Your task to perform on an android device: turn on data saver in the chrome app Image 0: 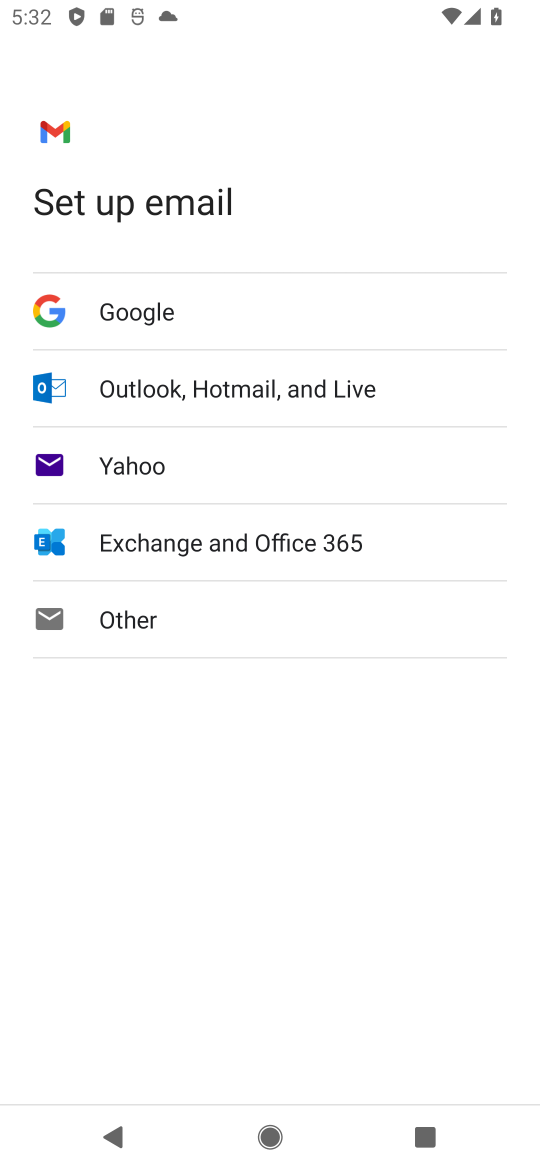
Step 0: press home button
Your task to perform on an android device: turn on data saver in the chrome app Image 1: 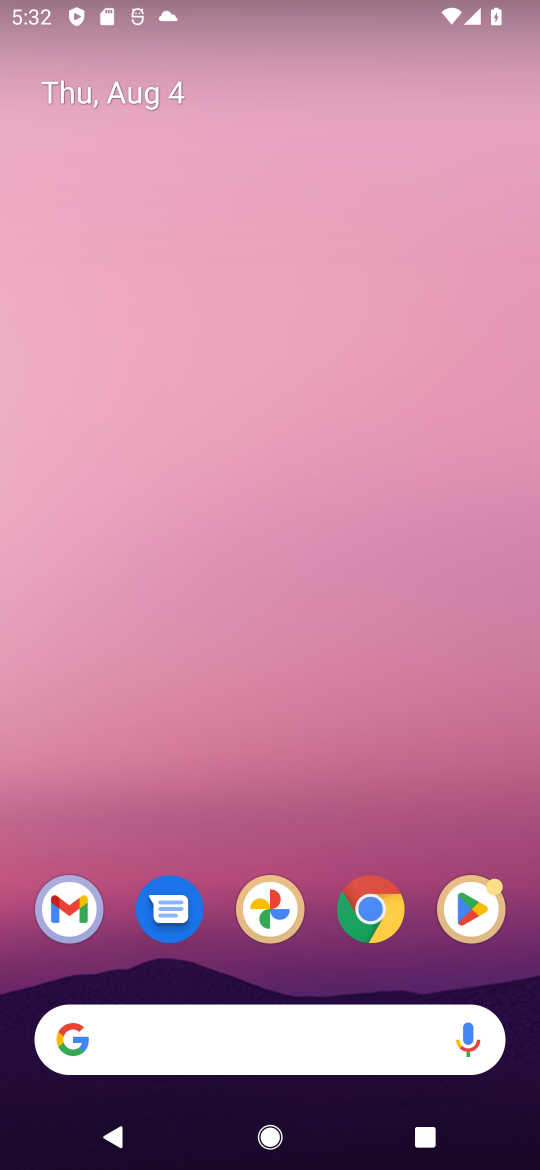
Step 1: drag from (179, 1060) to (314, 289)
Your task to perform on an android device: turn on data saver in the chrome app Image 2: 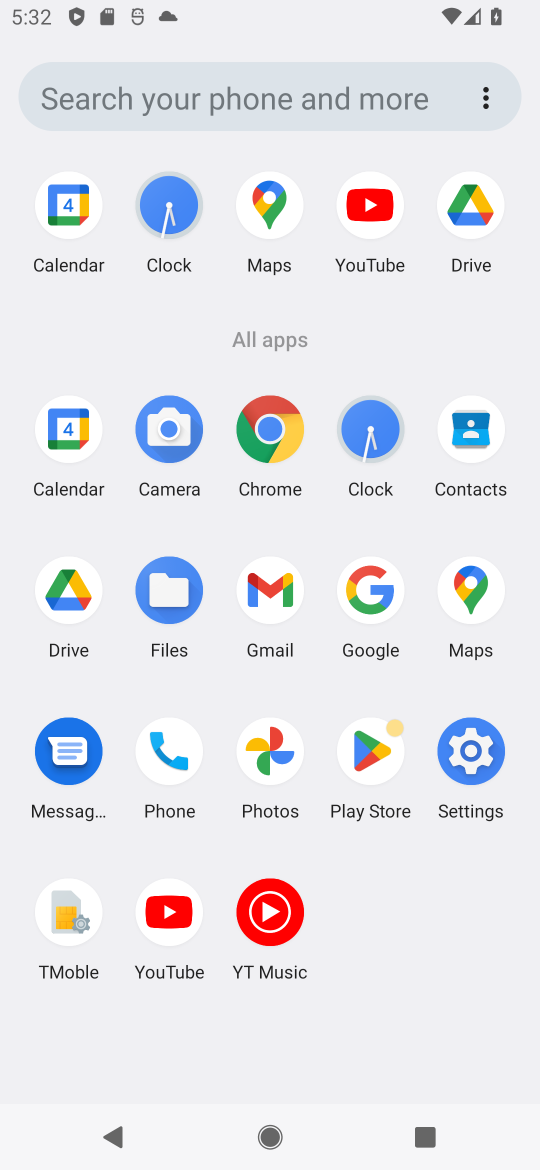
Step 2: click (269, 435)
Your task to perform on an android device: turn on data saver in the chrome app Image 3: 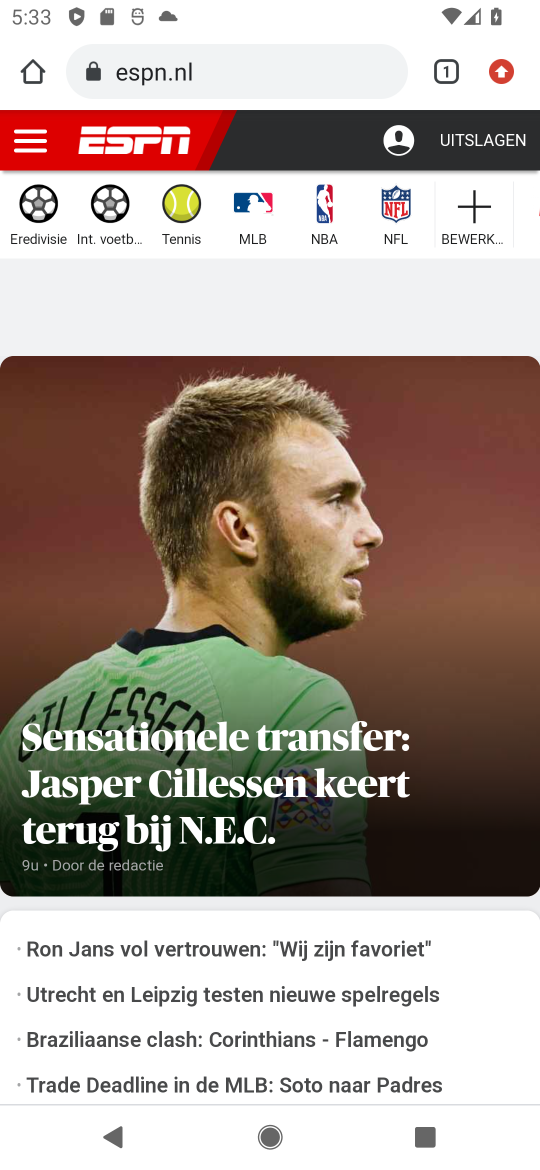
Step 3: click (498, 79)
Your task to perform on an android device: turn on data saver in the chrome app Image 4: 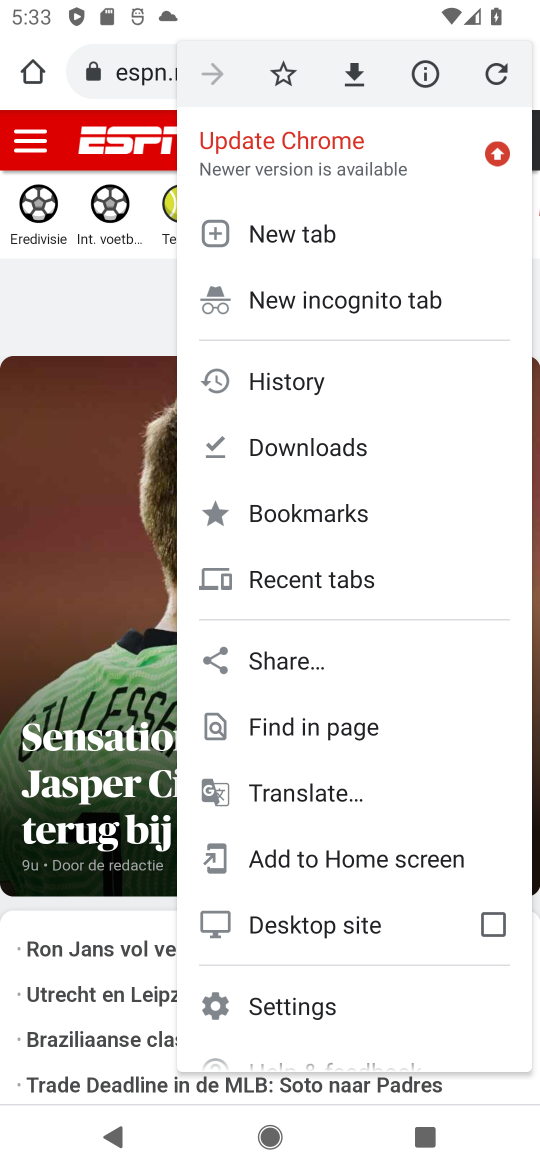
Step 4: click (307, 1003)
Your task to perform on an android device: turn on data saver in the chrome app Image 5: 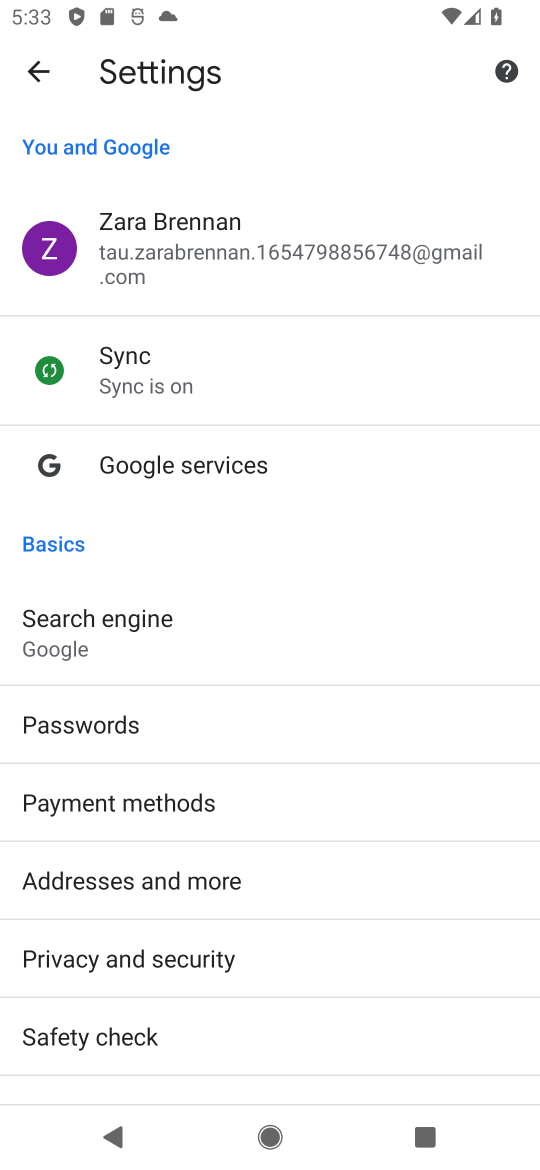
Step 5: drag from (111, 843) to (143, 637)
Your task to perform on an android device: turn on data saver in the chrome app Image 6: 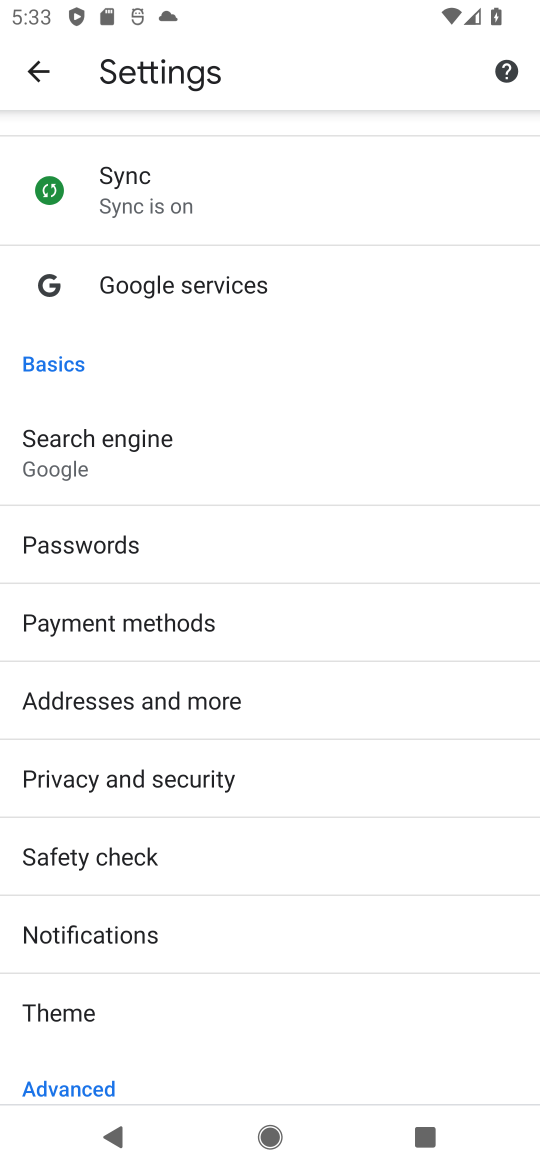
Step 6: drag from (130, 915) to (221, 742)
Your task to perform on an android device: turn on data saver in the chrome app Image 7: 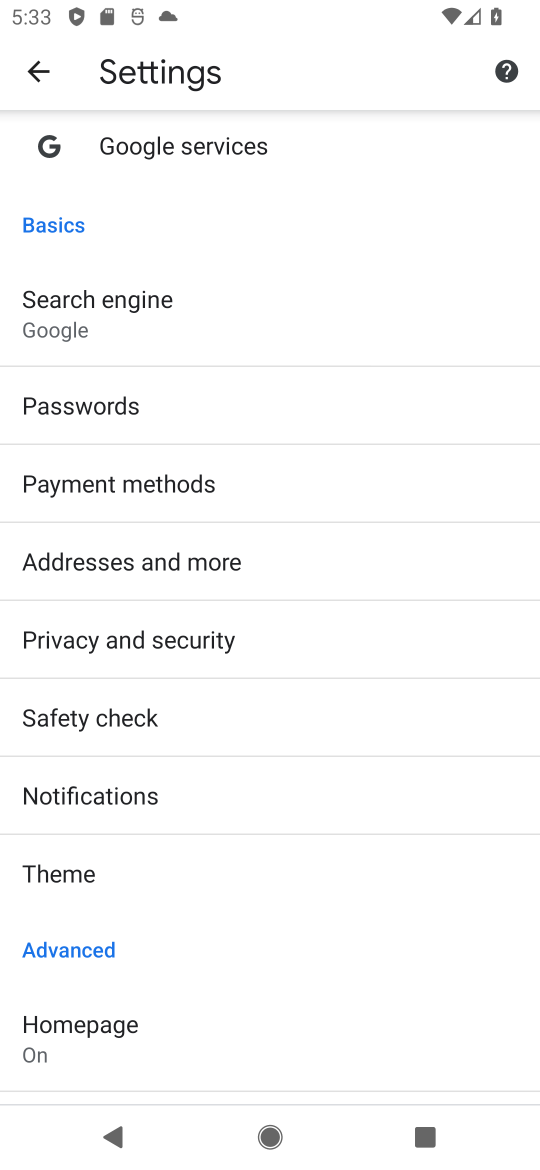
Step 7: drag from (165, 964) to (310, 769)
Your task to perform on an android device: turn on data saver in the chrome app Image 8: 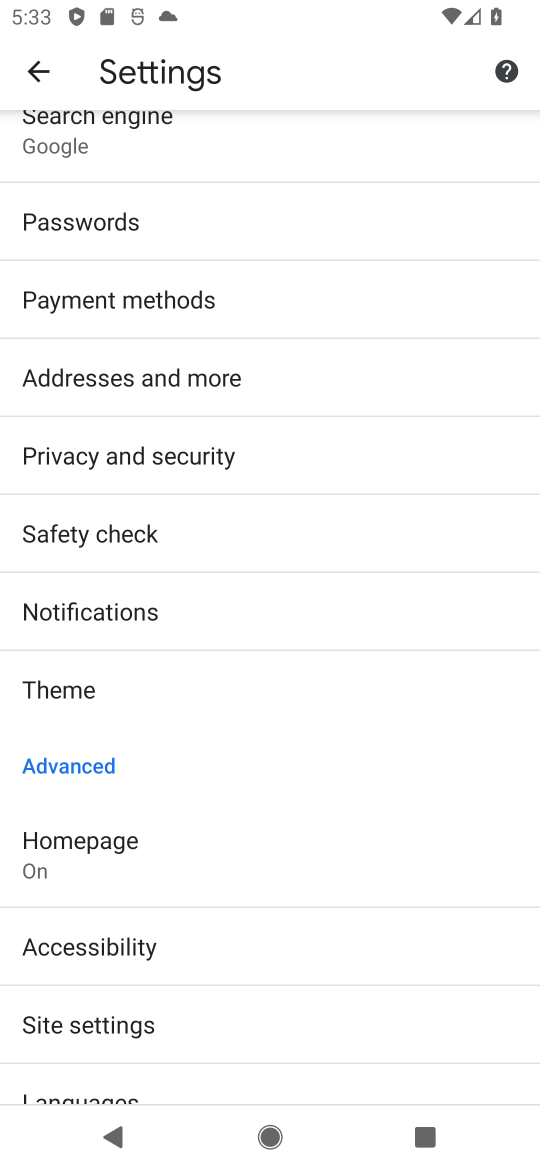
Step 8: drag from (173, 1033) to (322, 844)
Your task to perform on an android device: turn on data saver in the chrome app Image 9: 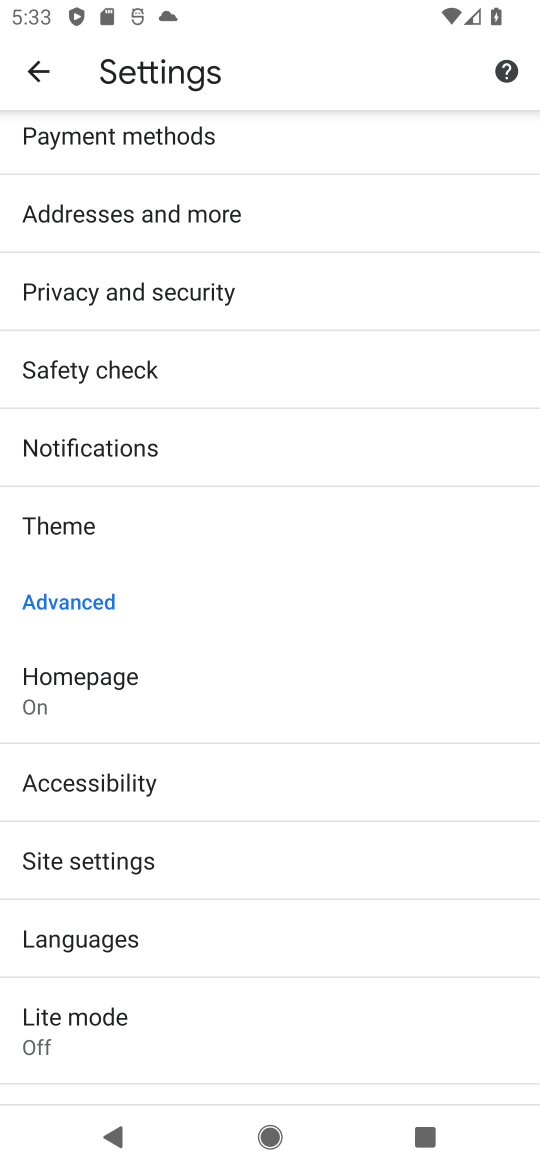
Step 9: drag from (161, 986) to (267, 806)
Your task to perform on an android device: turn on data saver in the chrome app Image 10: 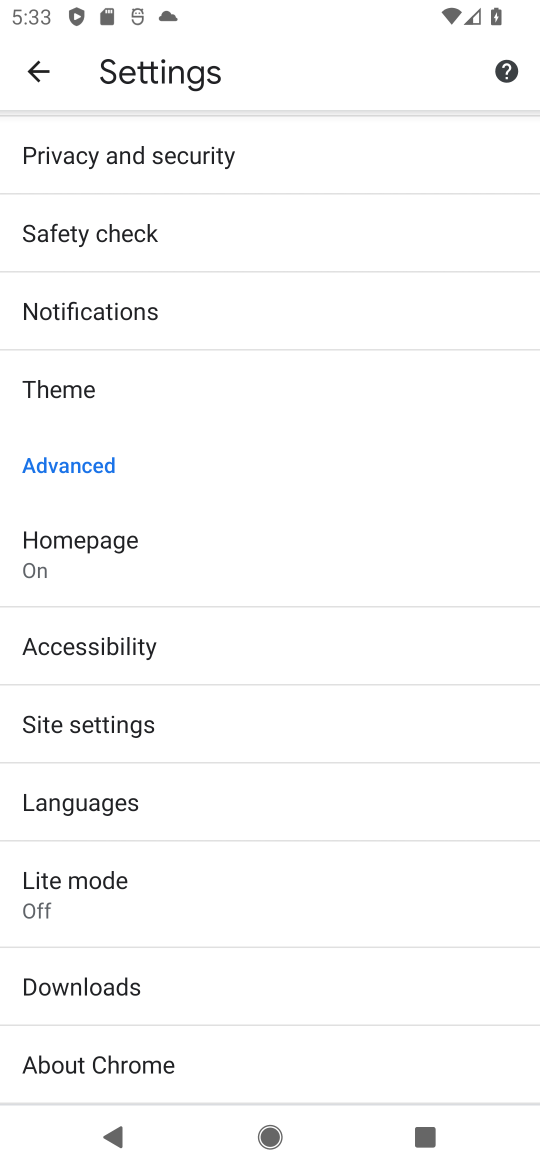
Step 10: click (82, 925)
Your task to perform on an android device: turn on data saver in the chrome app Image 11: 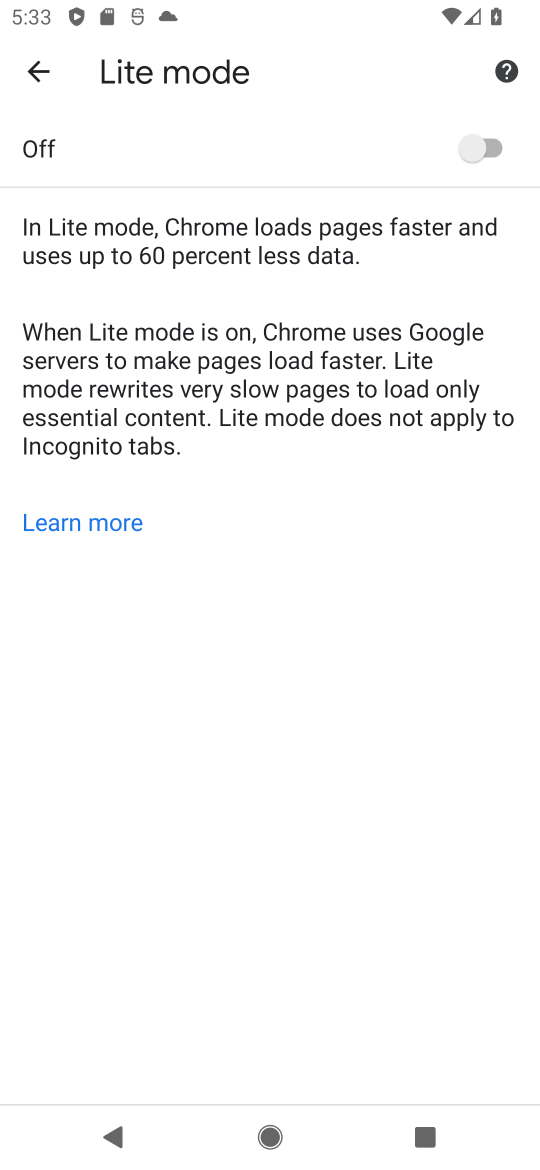
Step 11: click (464, 143)
Your task to perform on an android device: turn on data saver in the chrome app Image 12: 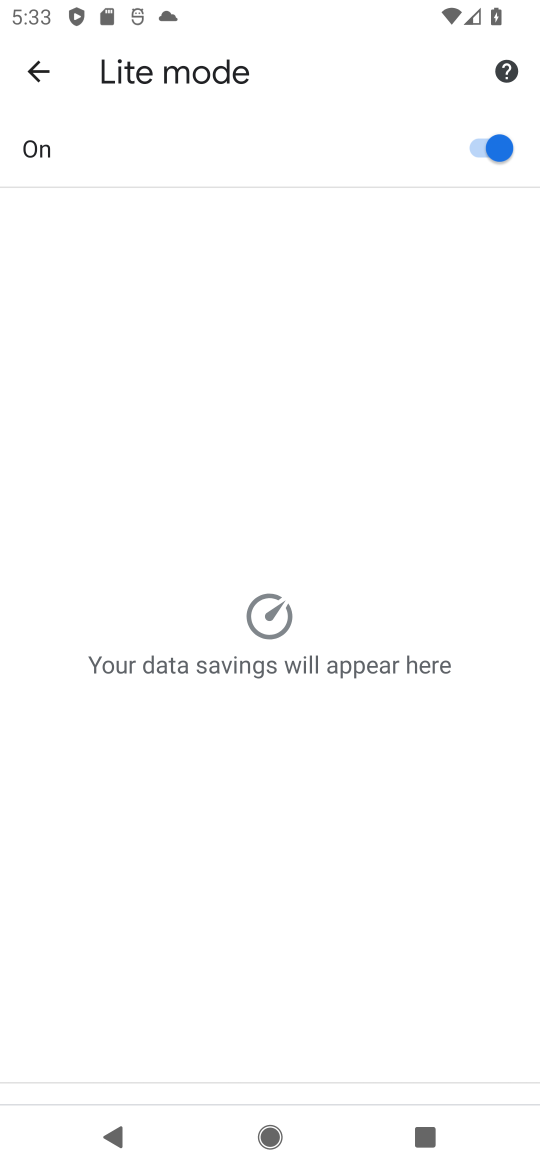
Step 12: task complete